Your task to perform on an android device: turn on wifi Image 0: 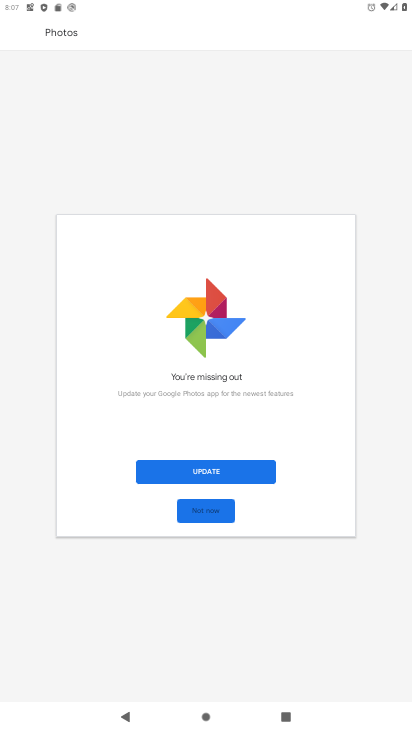
Step 0: press home button
Your task to perform on an android device: turn on wifi Image 1: 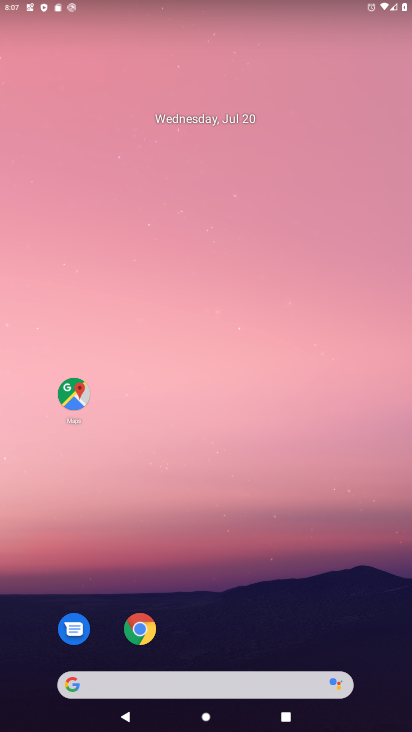
Step 1: drag from (226, 609) to (205, 5)
Your task to perform on an android device: turn on wifi Image 2: 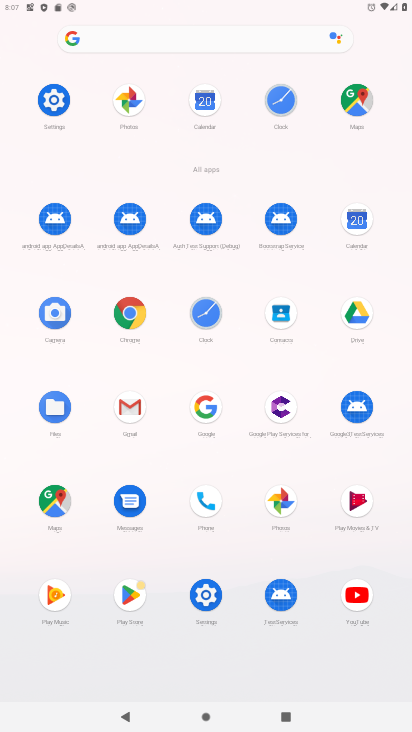
Step 2: click (57, 107)
Your task to perform on an android device: turn on wifi Image 3: 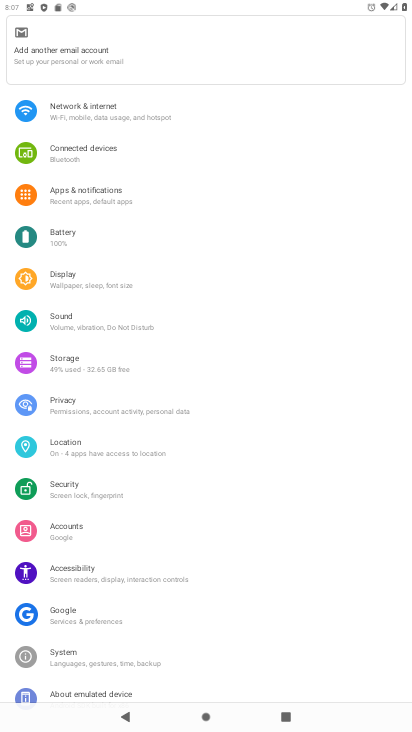
Step 3: click (71, 102)
Your task to perform on an android device: turn on wifi Image 4: 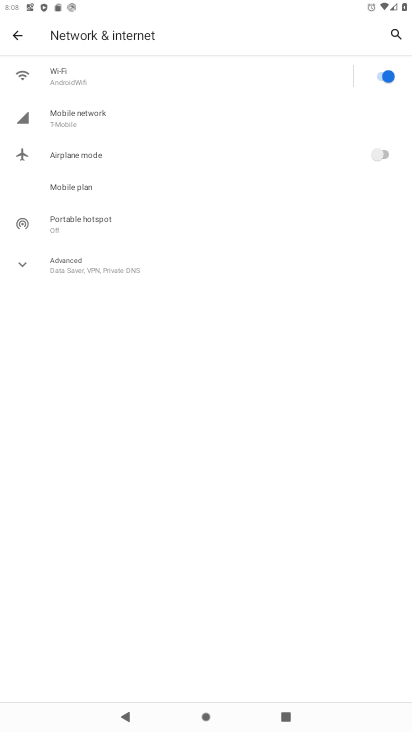
Step 4: task complete